Your task to perform on an android device: Open network settings Image 0: 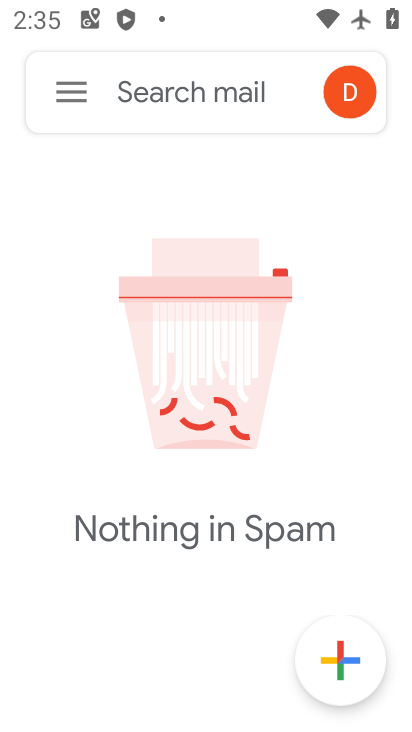
Step 0: press home button
Your task to perform on an android device: Open network settings Image 1: 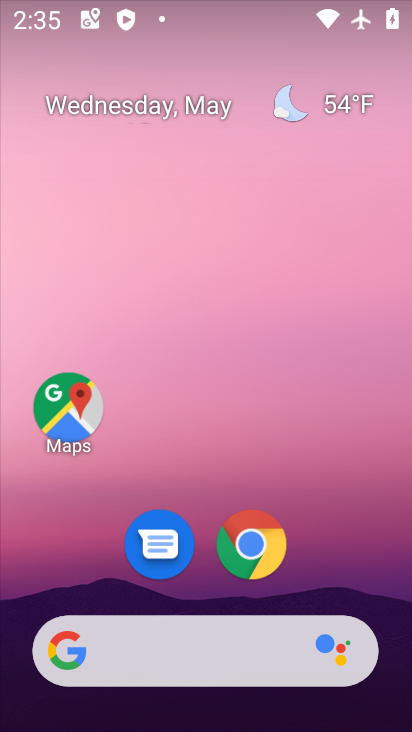
Step 1: drag from (343, 541) to (262, 22)
Your task to perform on an android device: Open network settings Image 2: 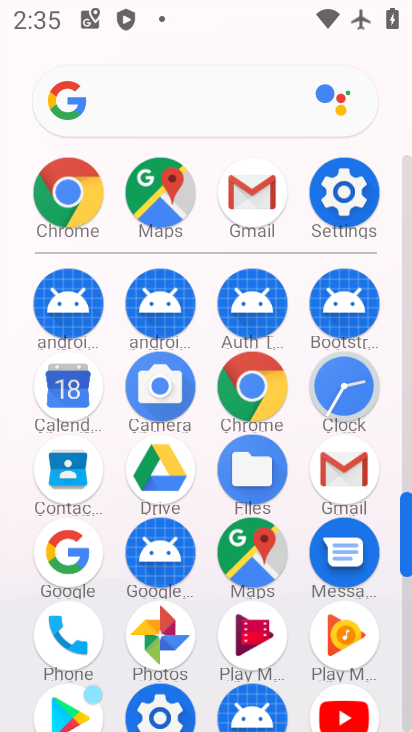
Step 2: click (336, 177)
Your task to perform on an android device: Open network settings Image 3: 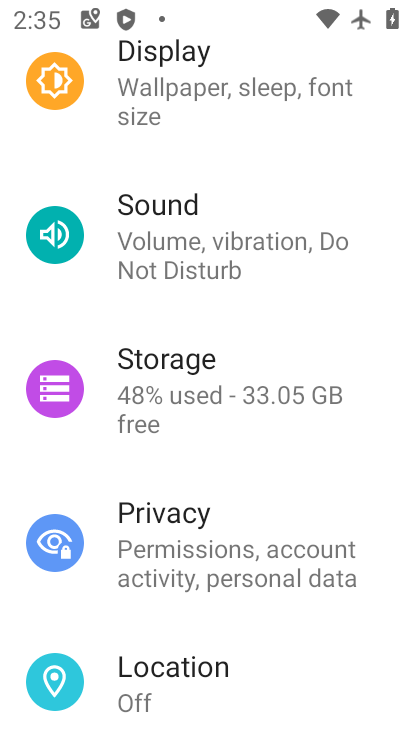
Step 3: drag from (256, 207) to (159, 546)
Your task to perform on an android device: Open network settings Image 4: 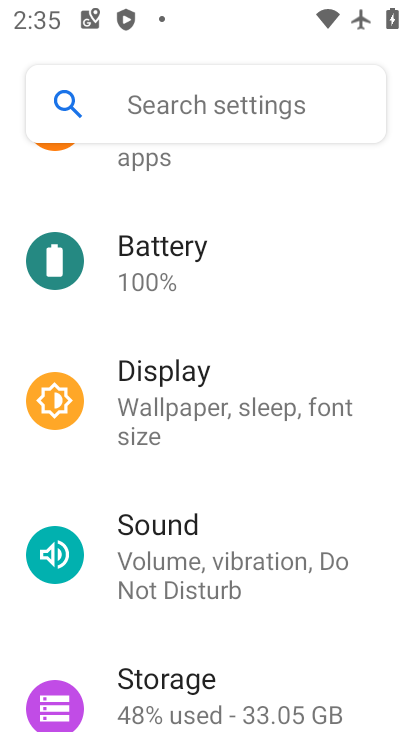
Step 4: drag from (137, 170) to (141, 635)
Your task to perform on an android device: Open network settings Image 5: 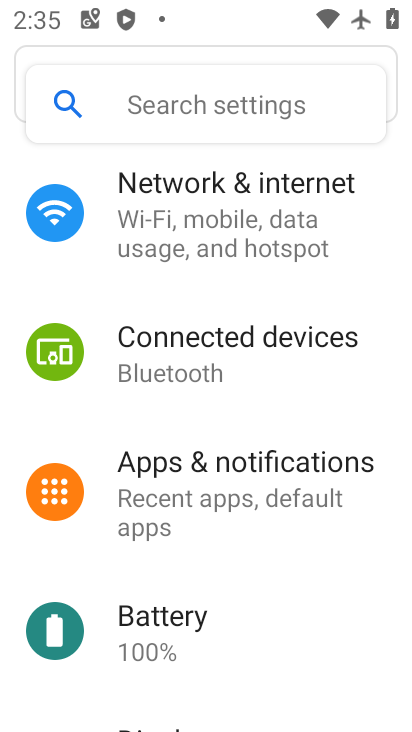
Step 5: click (118, 235)
Your task to perform on an android device: Open network settings Image 6: 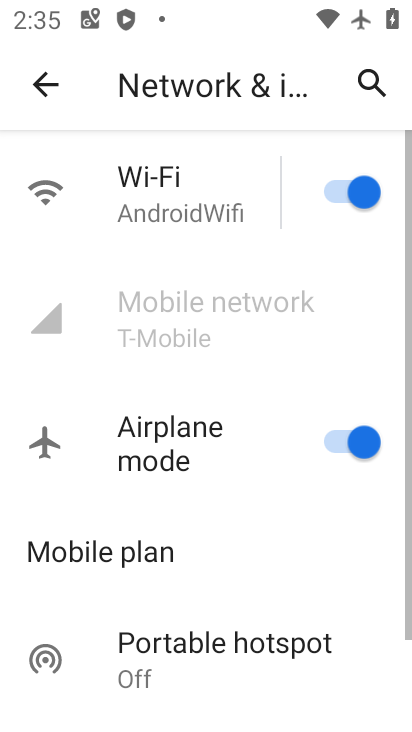
Step 6: task complete